Your task to perform on an android device: add a contact in the contacts app Image 0: 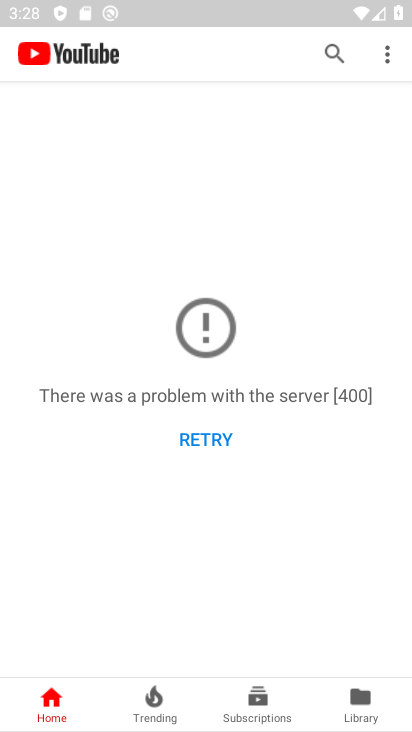
Step 0: press home button
Your task to perform on an android device: add a contact in the contacts app Image 1: 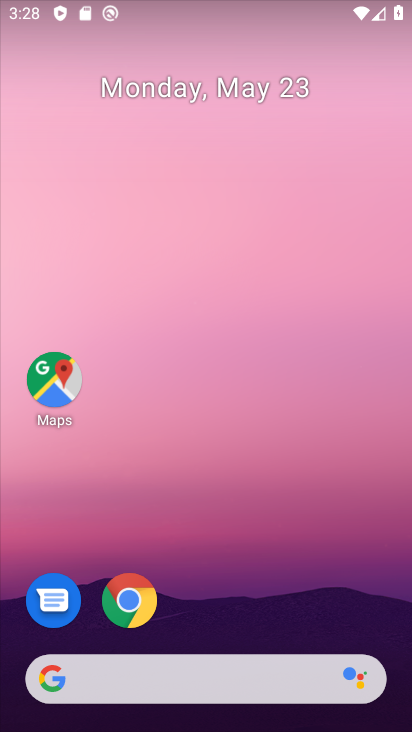
Step 1: drag from (214, 632) to (214, 13)
Your task to perform on an android device: add a contact in the contacts app Image 2: 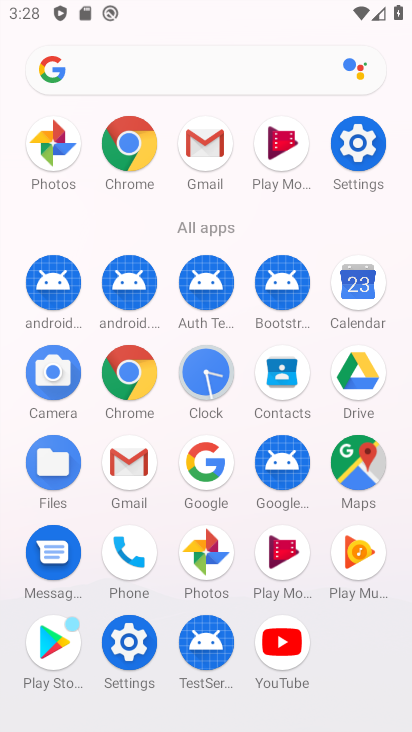
Step 2: click (275, 378)
Your task to perform on an android device: add a contact in the contacts app Image 3: 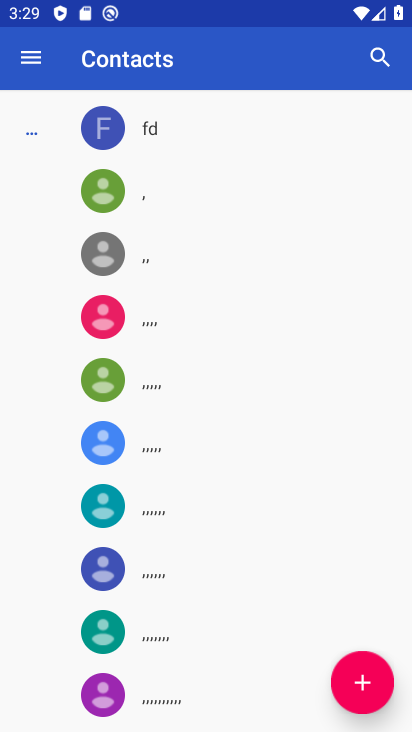
Step 3: click (360, 680)
Your task to perform on an android device: add a contact in the contacts app Image 4: 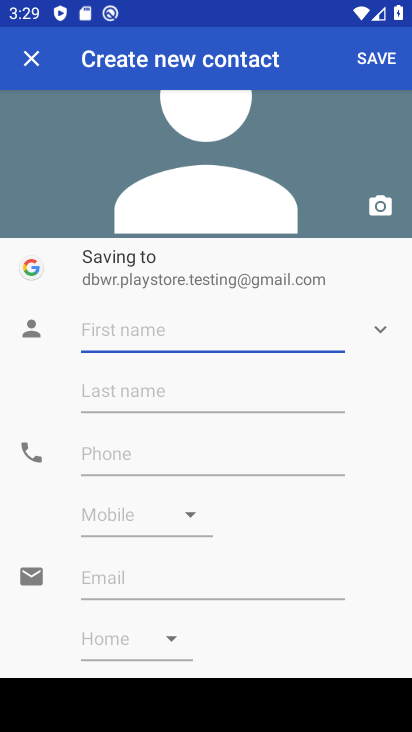
Step 4: click (111, 337)
Your task to perform on an android device: add a contact in the contacts app Image 5: 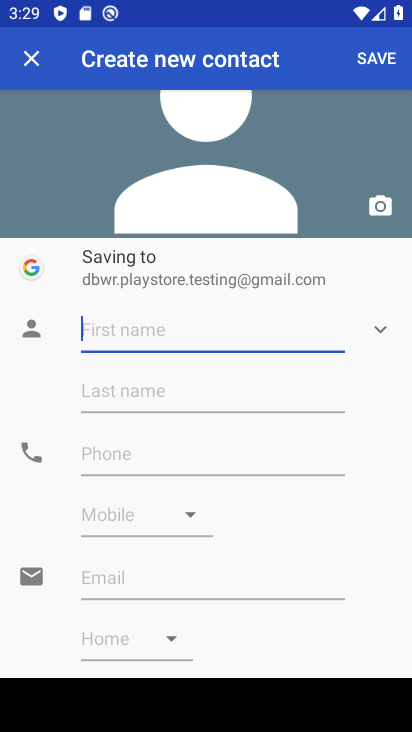
Step 5: type "seero"
Your task to perform on an android device: add a contact in the contacts app Image 6: 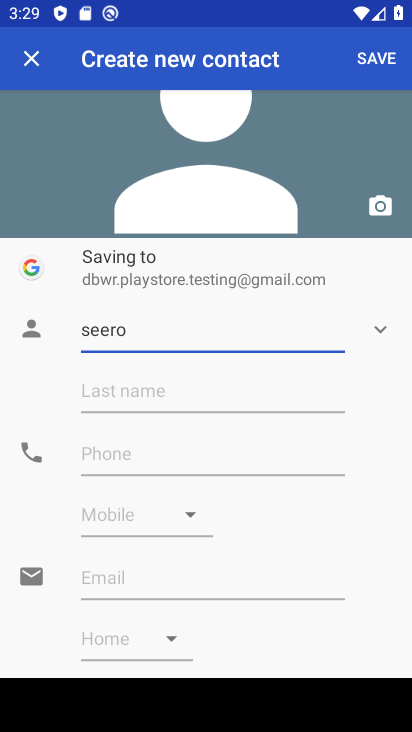
Step 6: click (120, 456)
Your task to perform on an android device: add a contact in the contacts app Image 7: 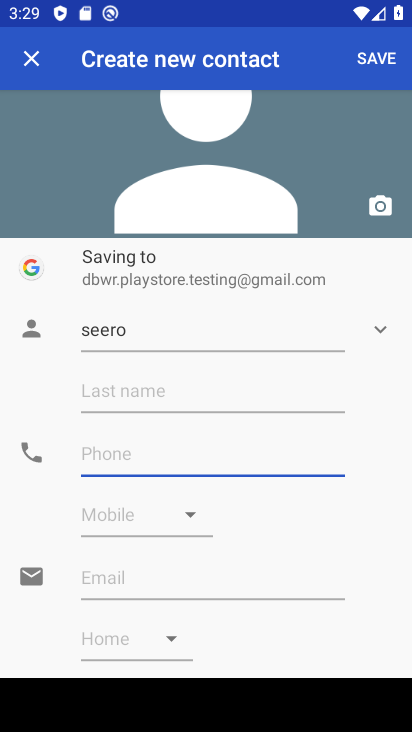
Step 7: type "98765543456"
Your task to perform on an android device: add a contact in the contacts app Image 8: 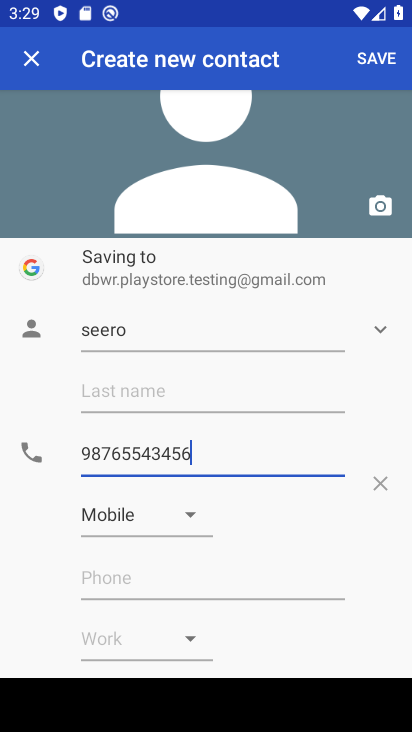
Step 8: click (369, 63)
Your task to perform on an android device: add a contact in the contacts app Image 9: 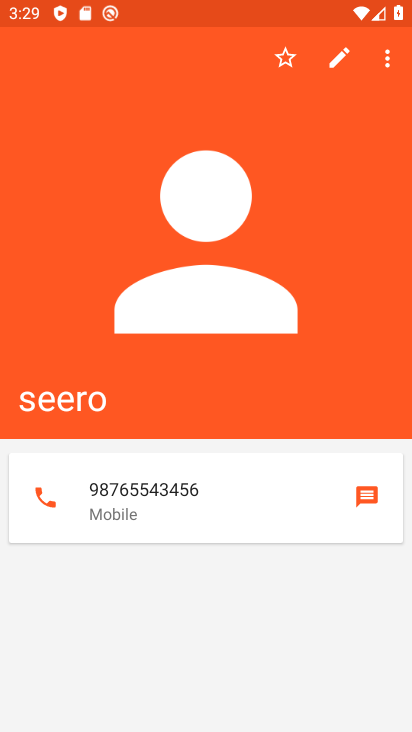
Step 9: task complete